Your task to perform on an android device: What's the weather? Image 0: 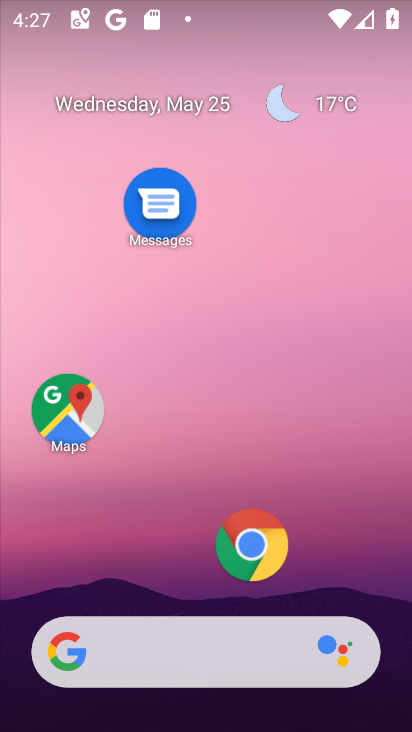
Step 0: click (155, 664)
Your task to perform on an android device: What's the weather? Image 1: 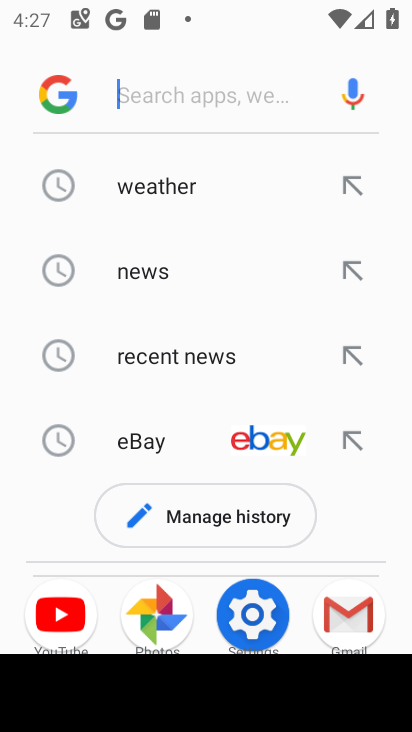
Step 1: click (187, 180)
Your task to perform on an android device: What's the weather? Image 2: 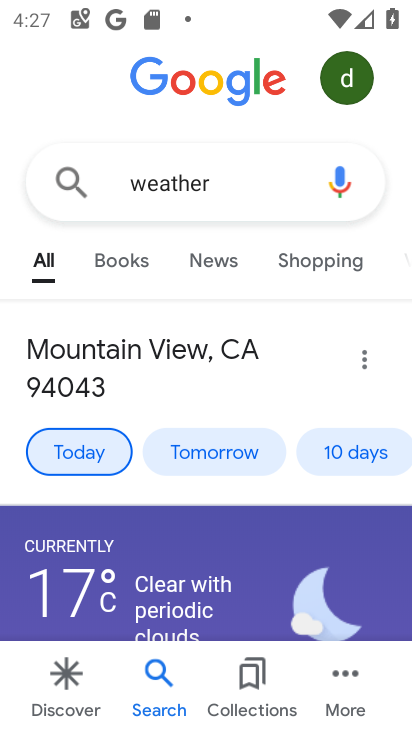
Step 2: task complete